Your task to perform on an android device: Open Amazon Image 0: 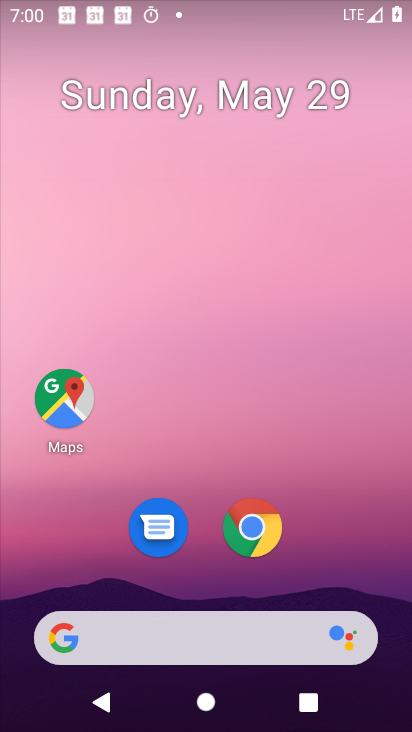
Step 0: click (393, 570)
Your task to perform on an android device: Open Amazon Image 1: 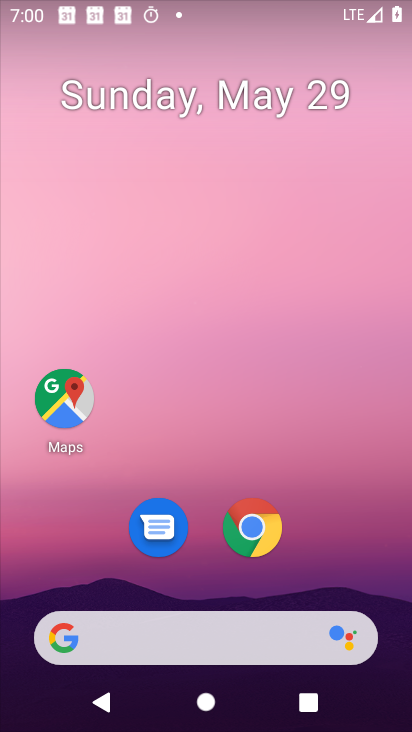
Step 1: click (176, 7)
Your task to perform on an android device: Open Amazon Image 2: 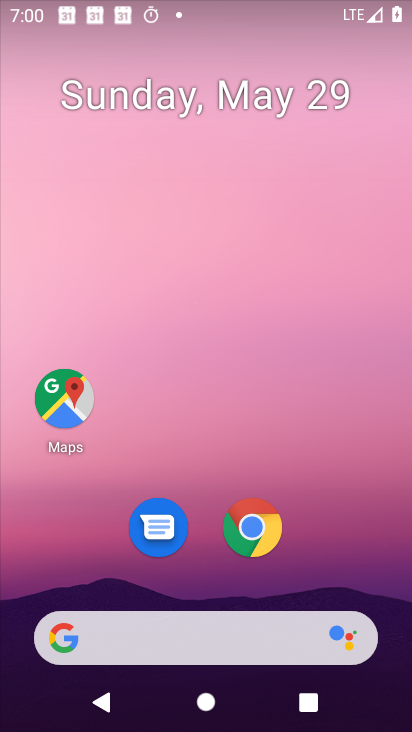
Step 2: drag from (410, 651) to (255, 27)
Your task to perform on an android device: Open Amazon Image 3: 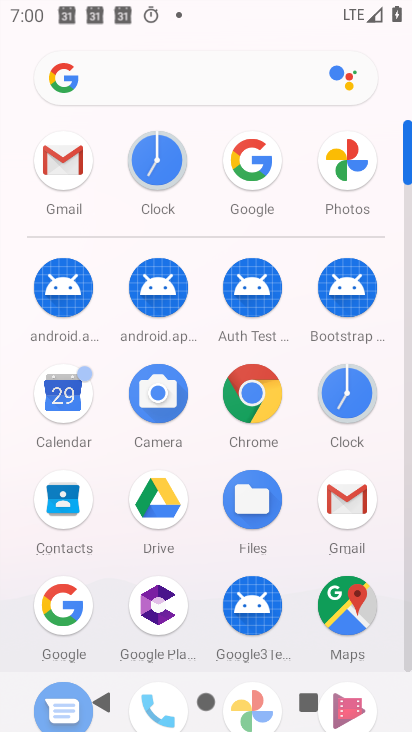
Step 3: click (55, 607)
Your task to perform on an android device: Open Amazon Image 4: 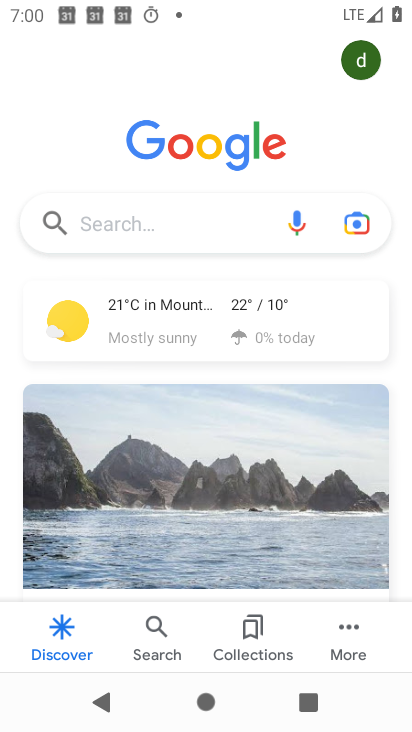
Step 4: click (87, 236)
Your task to perform on an android device: Open Amazon Image 5: 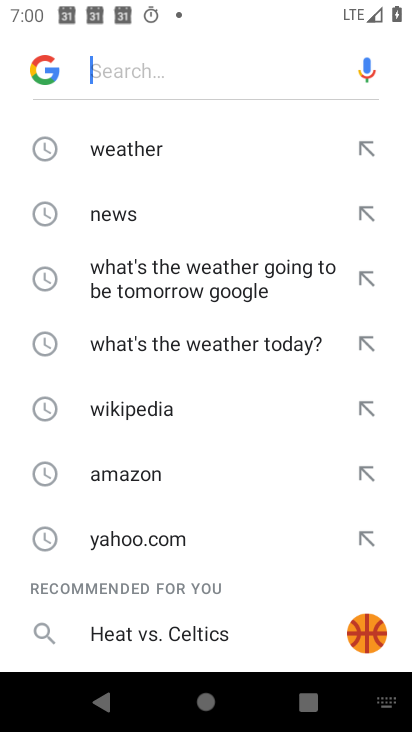
Step 5: click (151, 472)
Your task to perform on an android device: Open Amazon Image 6: 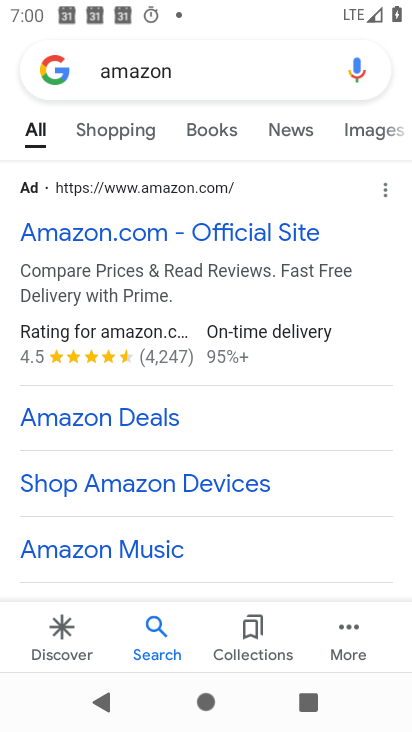
Step 6: task complete